Your task to perform on an android device: Open battery settings Image 0: 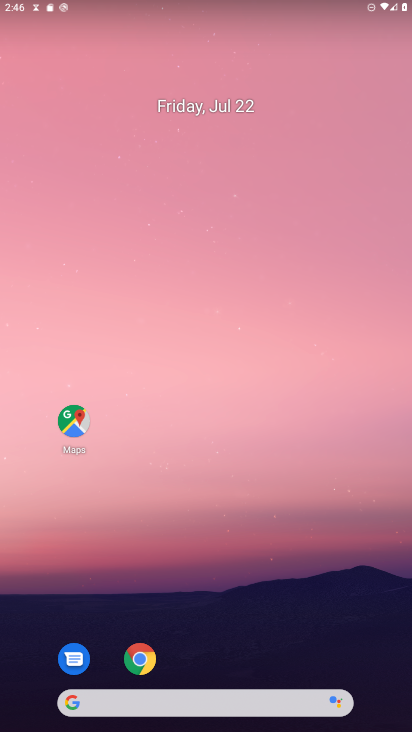
Step 0: drag from (288, 552) to (295, 9)
Your task to perform on an android device: Open battery settings Image 1: 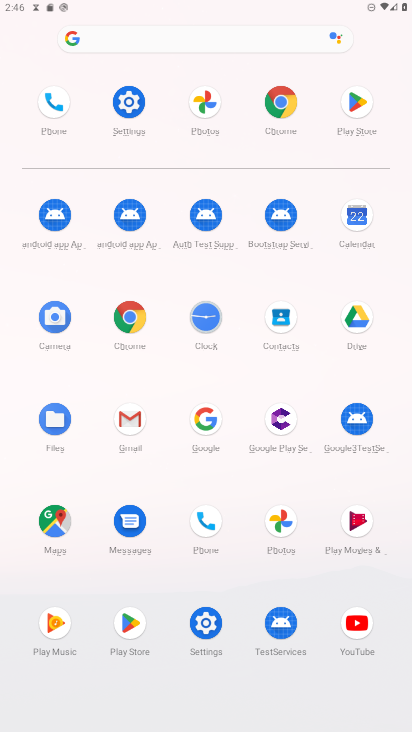
Step 1: click (125, 112)
Your task to perform on an android device: Open battery settings Image 2: 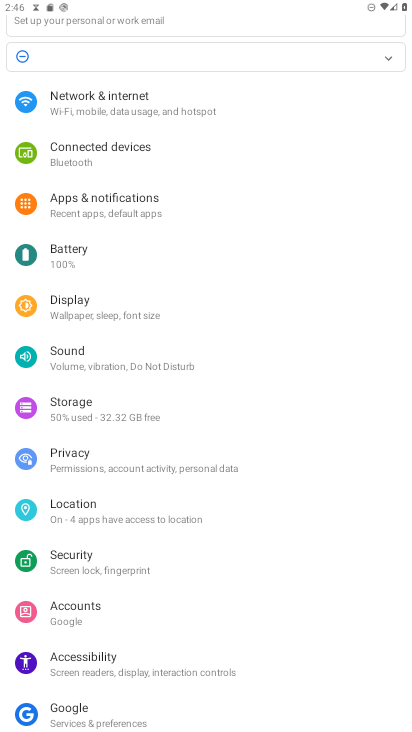
Step 2: click (82, 264)
Your task to perform on an android device: Open battery settings Image 3: 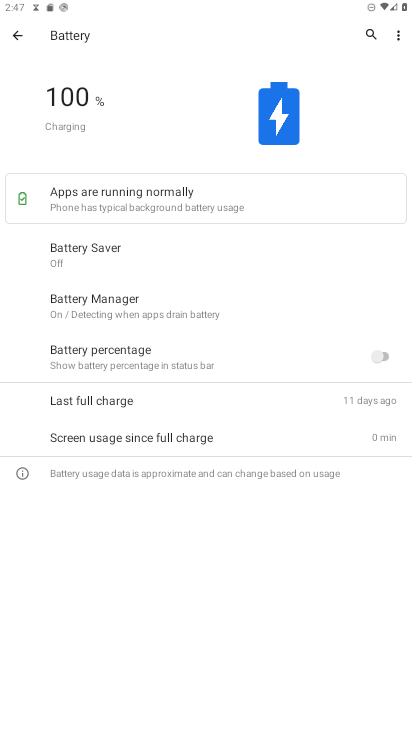
Step 3: task complete